Your task to perform on an android device: toggle sleep mode Image 0: 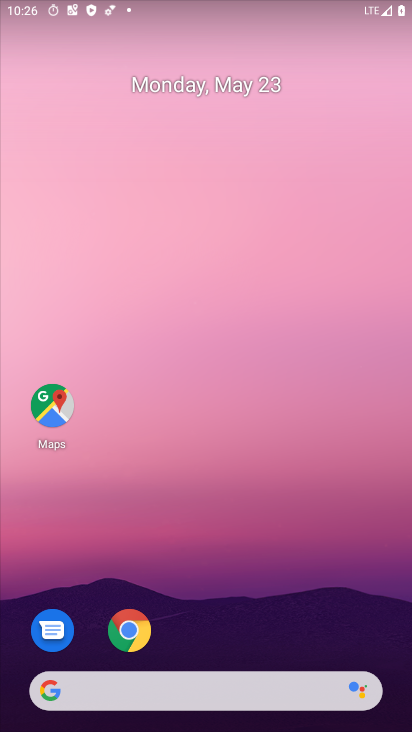
Step 0: drag from (249, 575) to (275, 2)
Your task to perform on an android device: toggle sleep mode Image 1: 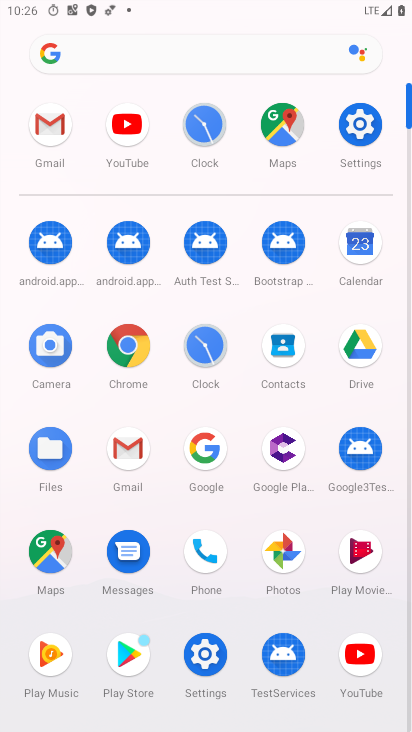
Step 1: click (354, 117)
Your task to perform on an android device: toggle sleep mode Image 2: 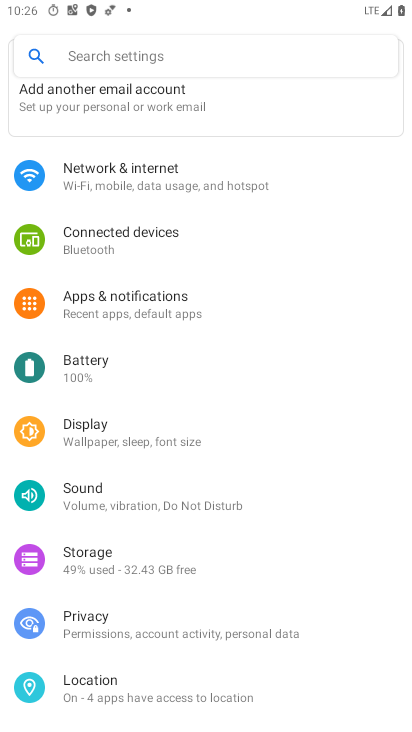
Step 2: click (94, 421)
Your task to perform on an android device: toggle sleep mode Image 3: 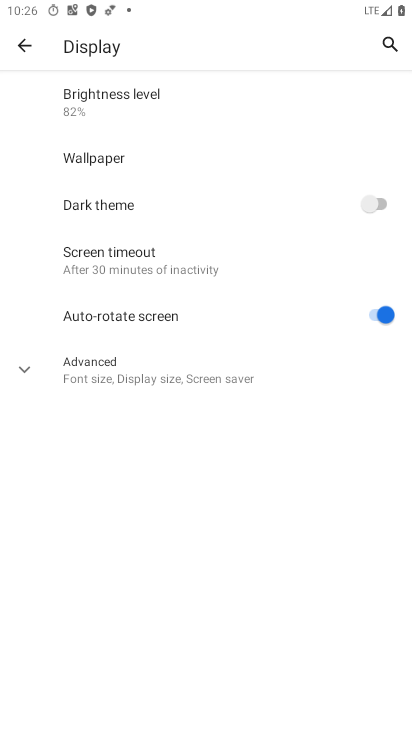
Step 3: click (21, 376)
Your task to perform on an android device: toggle sleep mode Image 4: 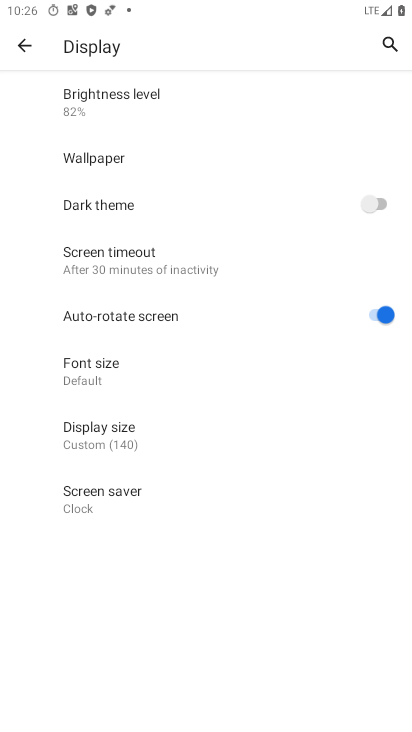
Step 4: task complete